Your task to perform on an android device: find which apps use the phone's location Image 0: 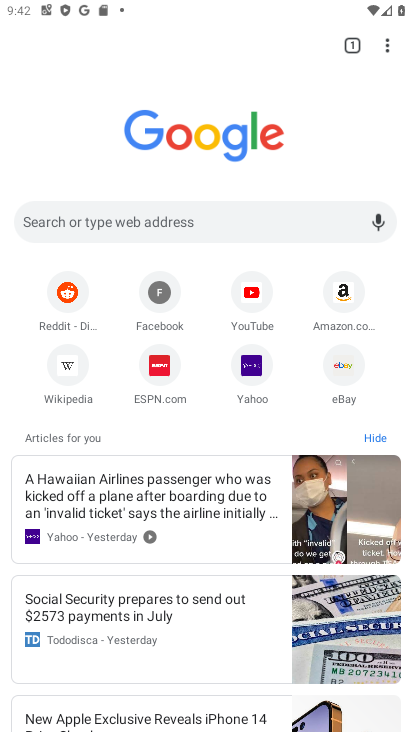
Step 0: press home button
Your task to perform on an android device: find which apps use the phone's location Image 1: 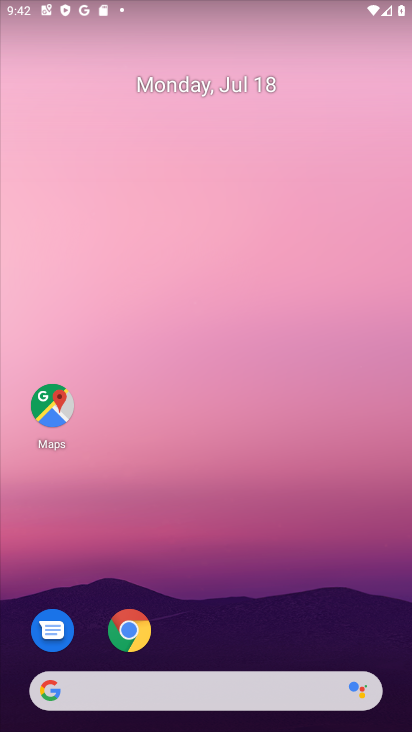
Step 1: drag from (284, 619) to (208, 10)
Your task to perform on an android device: find which apps use the phone's location Image 2: 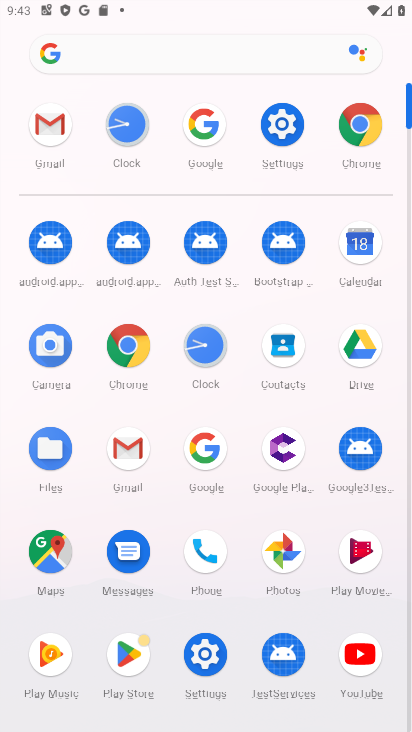
Step 2: click (198, 645)
Your task to perform on an android device: find which apps use the phone's location Image 3: 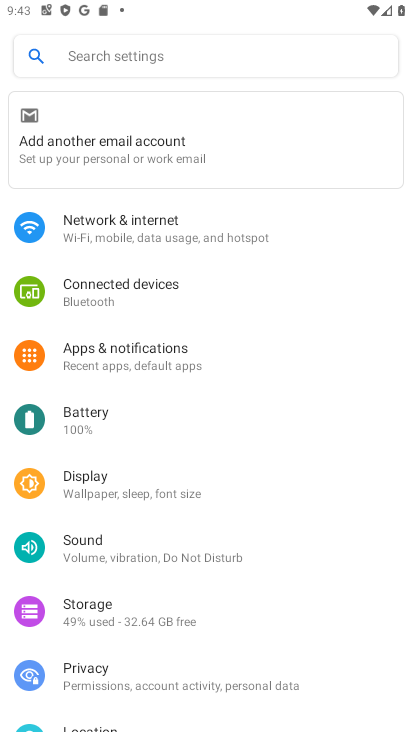
Step 3: drag from (77, 699) to (124, 276)
Your task to perform on an android device: find which apps use the phone's location Image 4: 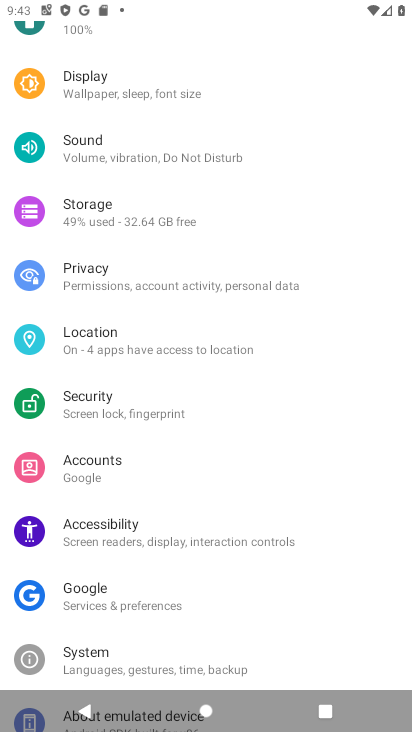
Step 4: click (93, 330)
Your task to perform on an android device: find which apps use the phone's location Image 5: 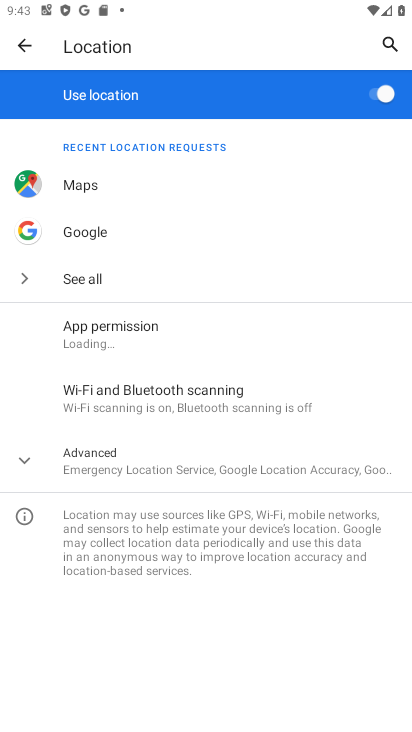
Step 5: click (93, 330)
Your task to perform on an android device: find which apps use the phone's location Image 6: 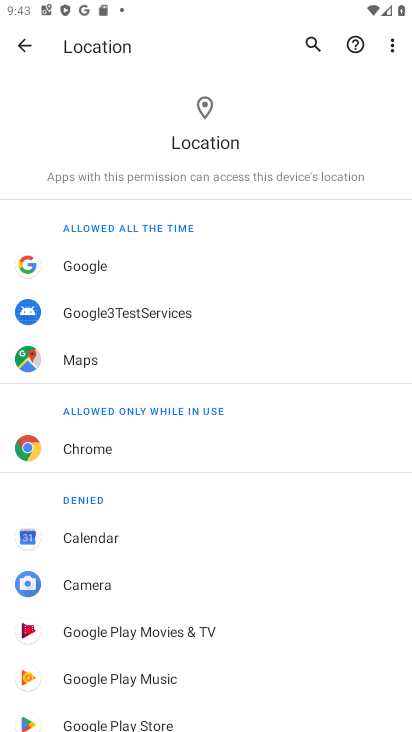
Step 6: drag from (71, 655) to (94, 210)
Your task to perform on an android device: find which apps use the phone's location Image 7: 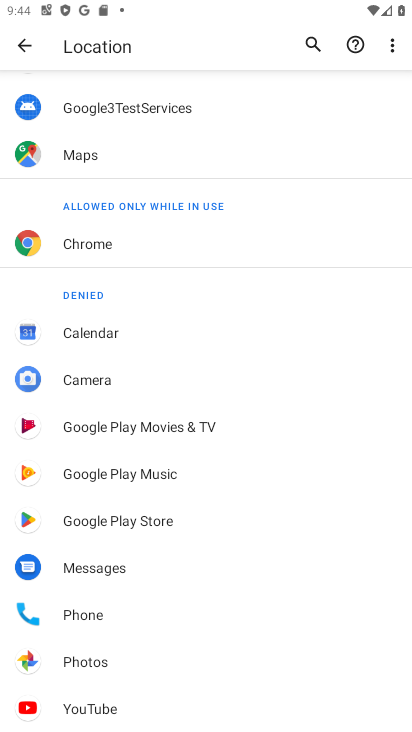
Step 7: click (73, 619)
Your task to perform on an android device: find which apps use the phone's location Image 8: 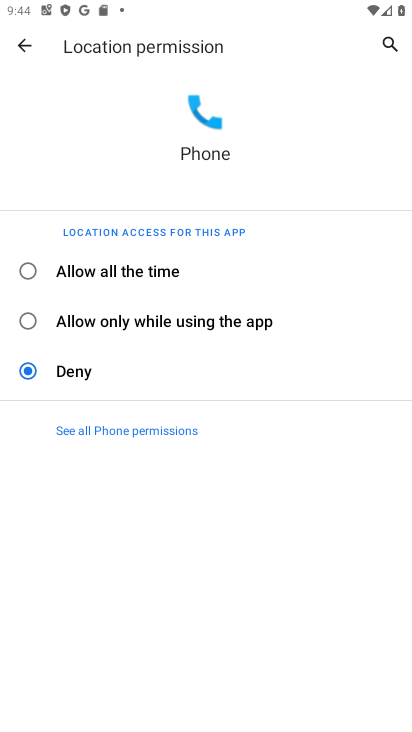
Step 8: click (37, 266)
Your task to perform on an android device: find which apps use the phone's location Image 9: 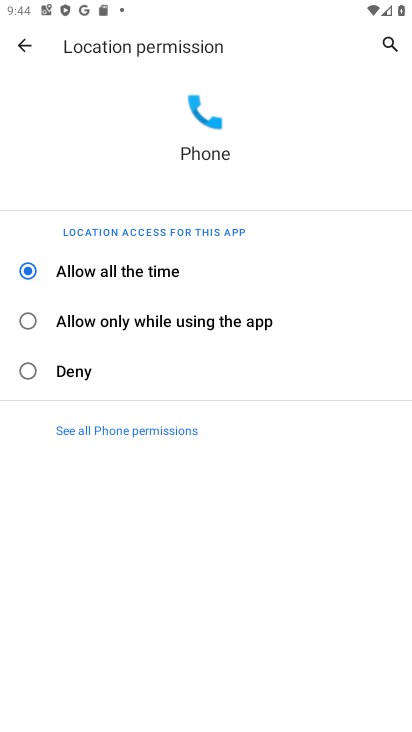
Step 9: task complete